Your task to perform on an android device: add a label to a message in the gmail app Image 0: 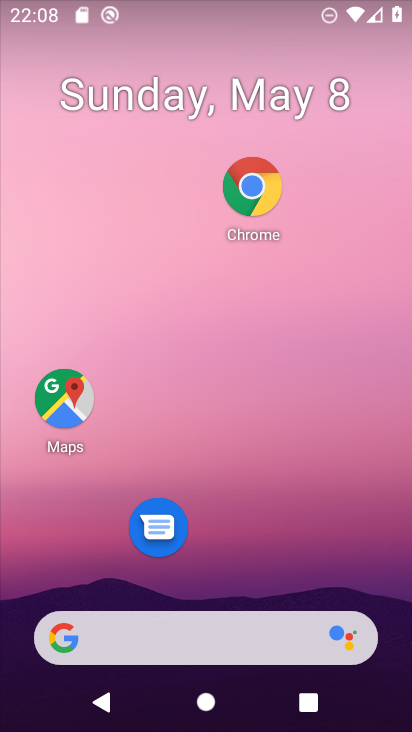
Step 0: drag from (311, 563) to (363, 191)
Your task to perform on an android device: add a label to a message in the gmail app Image 1: 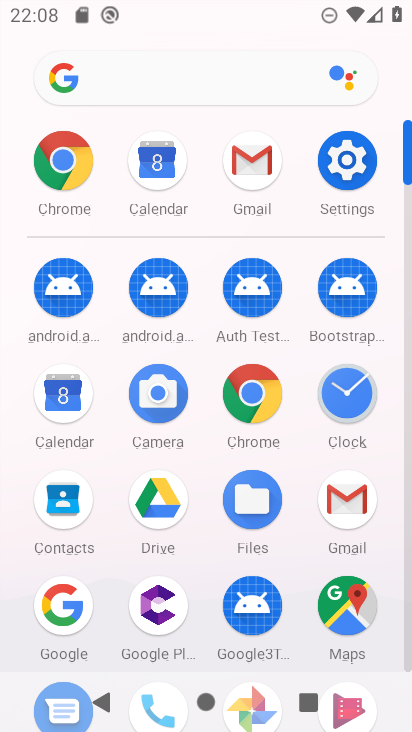
Step 1: click (352, 505)
Your task to perform on an android device: add a label to a message in the gmail app Image 2: 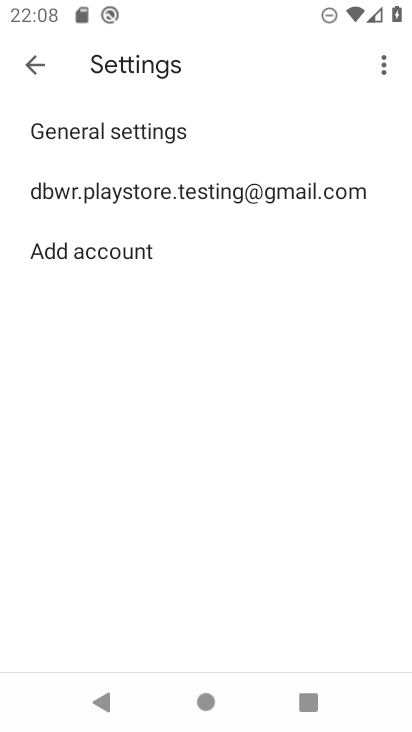
Step 2: click (30, 61)
Your task to perform on an android device: add a label to a message in the gmail app Image 3: 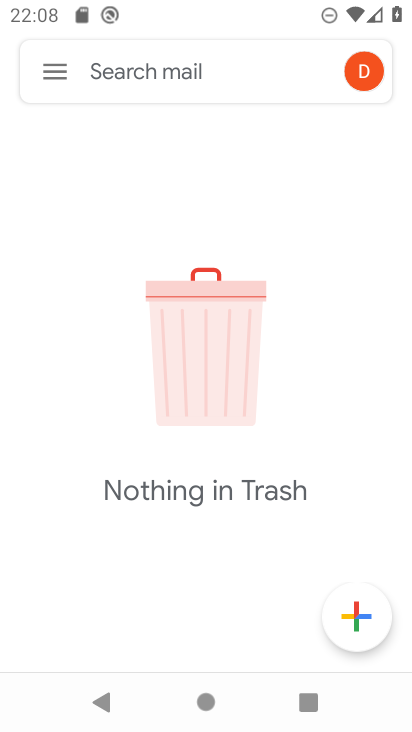
Step 3: click (56, 66)
Your task to perform on an android device: add a label to a message in the gmail app Image 4: 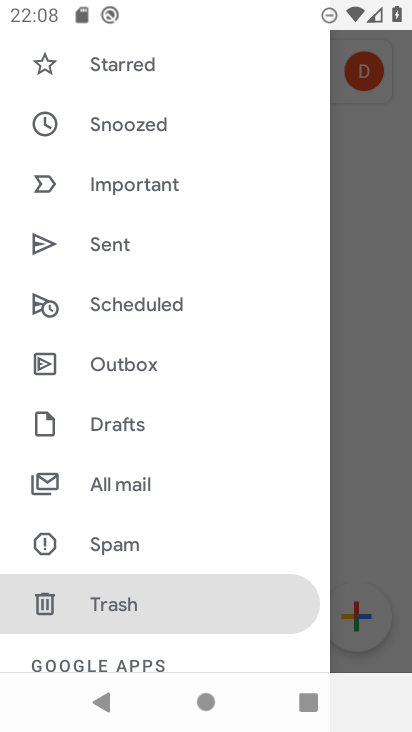
Step 4: click (140, 480)
Your task to perform on an android device: add a label to a message in the gmail app Image 5: 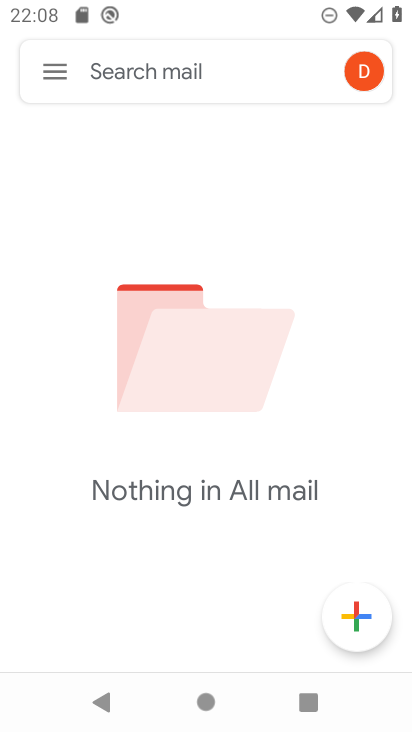
Step 5: click (42, 69)
Your task to perform on an android device: add a label to a message in the gmail app Image 6: 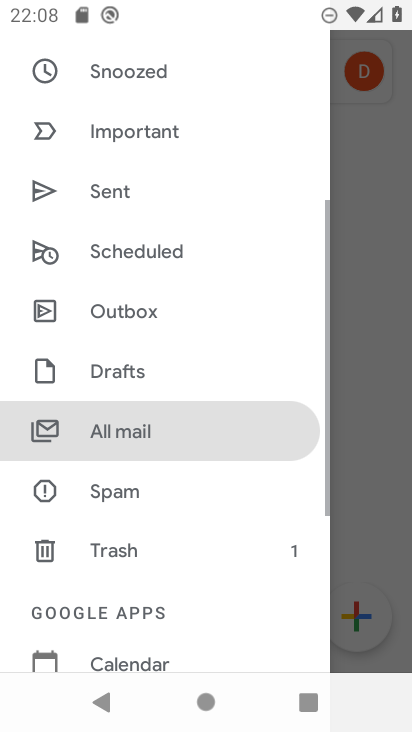
Step 6: drag from (139, 147) to (124, 591)
Your task to perform on an android device: add a label to a message in the gmail app Image 7: 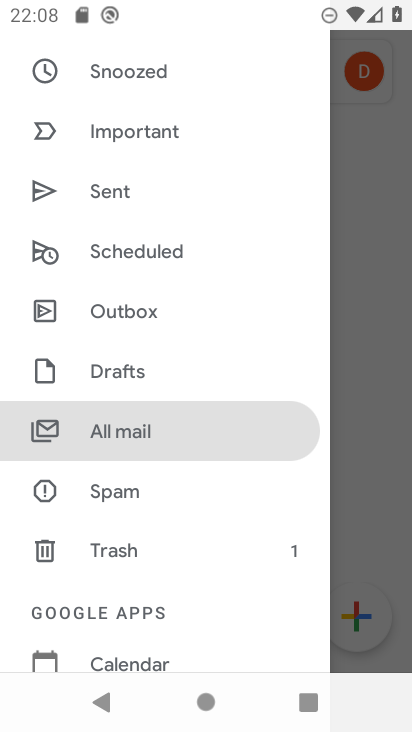
Step 7: click (183, 428)
Your task to perform on an android device: add a label to a message in the gmail app Image 8: 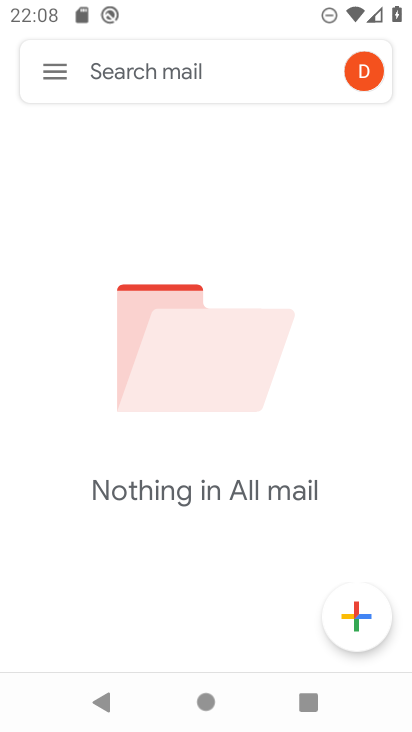
Step 8: task complete